Your task to perform on an android device: Go to internet settings Image 0: 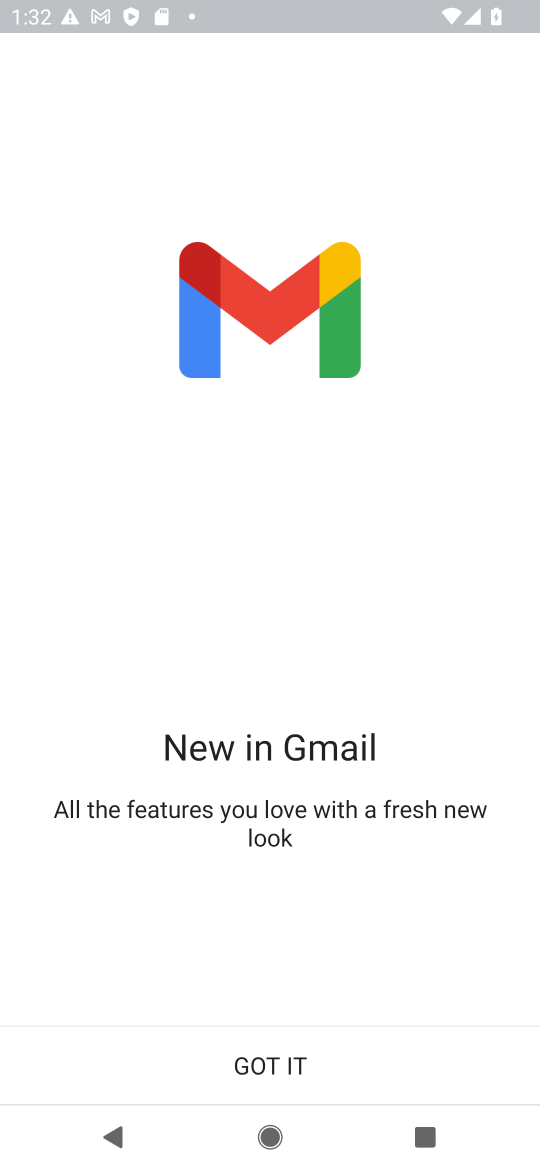
Step 0: press home button
Your task to perform on an android device: Go to internet settings Image 1: 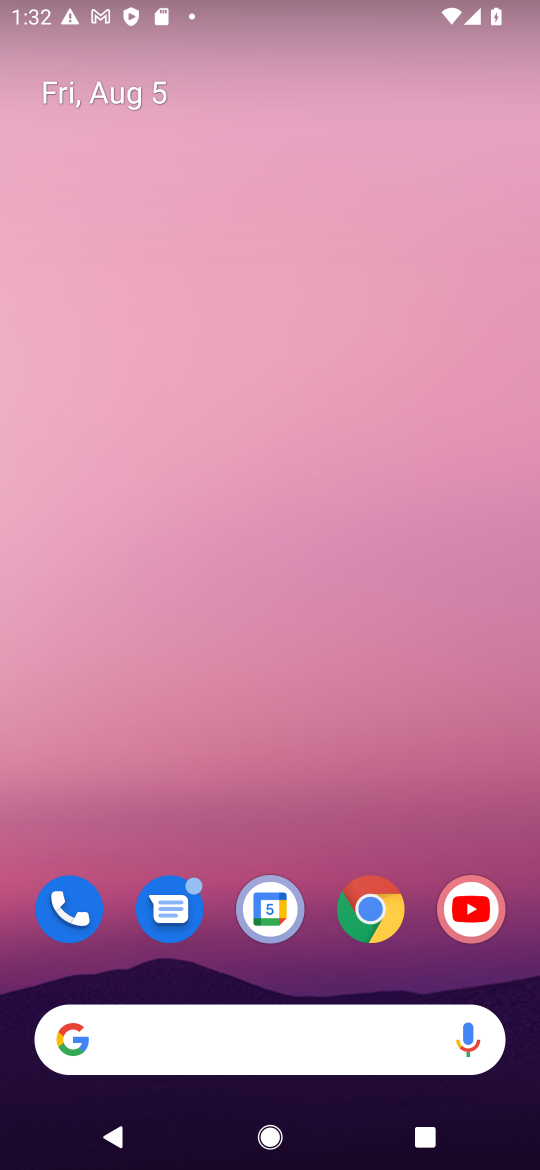
Step 1: drag from (251, 761) to (255, 1)
Your task to perform on an android device: Go to internet settings Image 2: 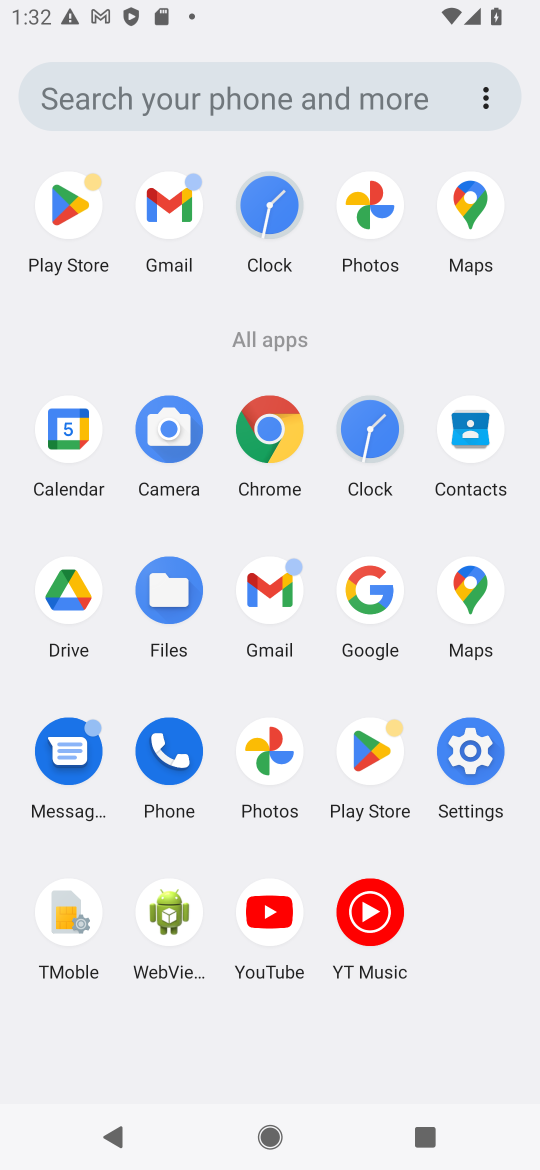
Step 2: click (468, 752)
Your task to perform on an android device: Go to internet settings Image 3: 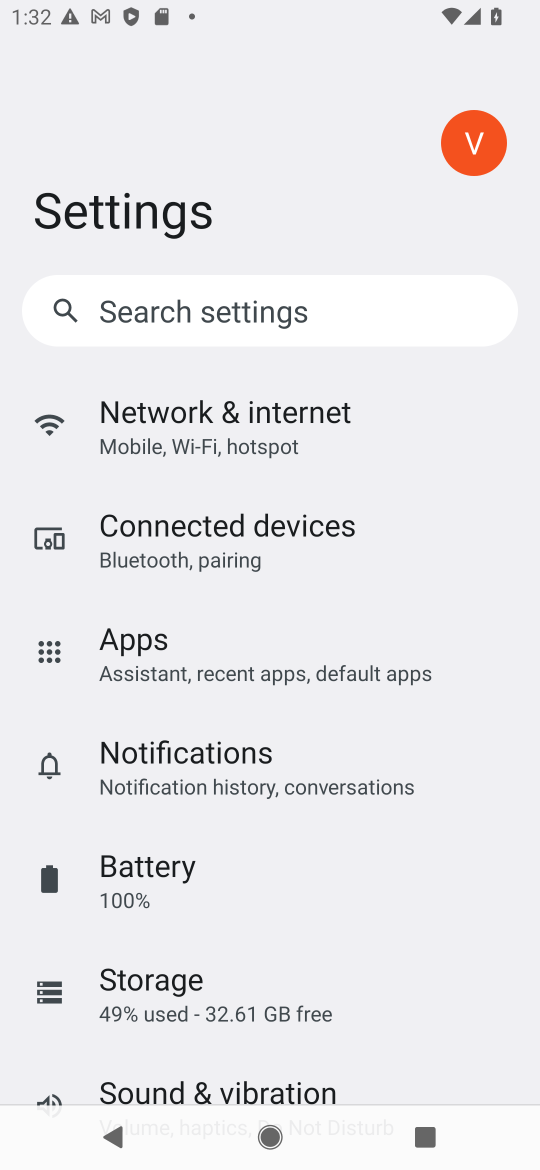
Step 3: click (220, 429)
Your task to perform on an android device: Go to internet settings Image 4: 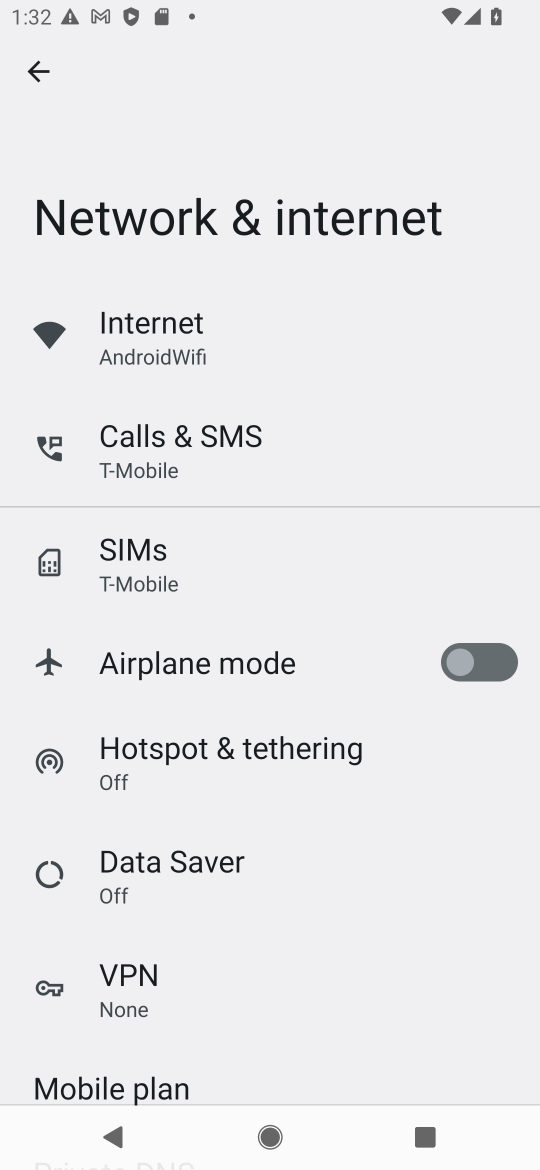
Step 4: click (131, 329)
Your task to perform on an android device: Go to internet settings Image 5: 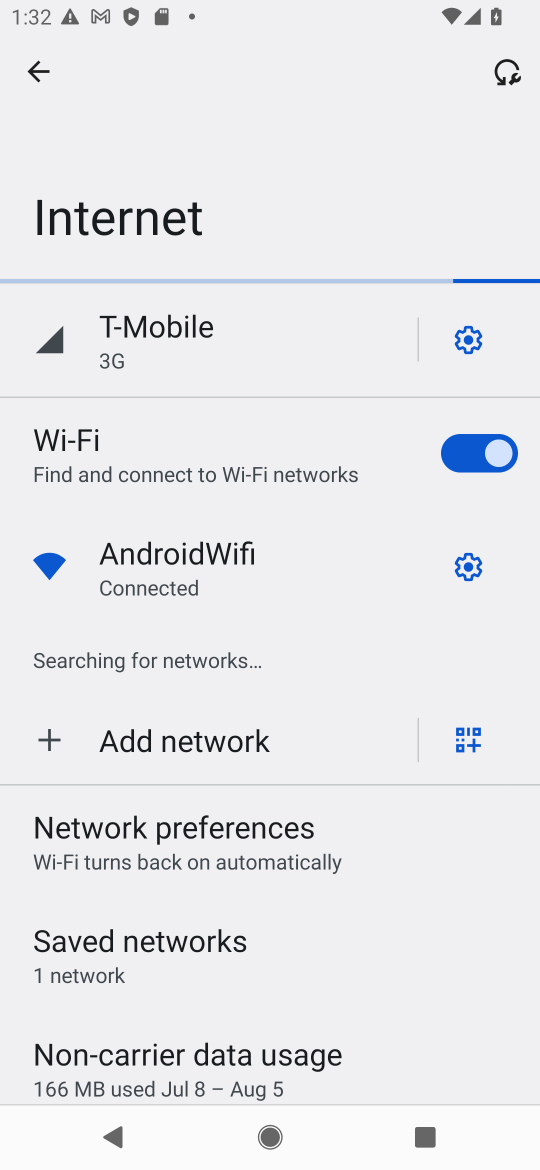
Step 5: task complete